Your task to perform on an android device: Open notification settings Image 0: 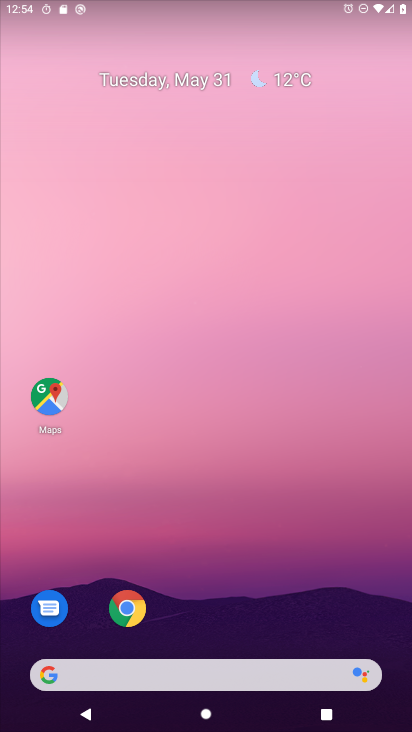
Step 0: drag from (237, 648) to (226, 13)
Your task to perform on an android device: Open notification settings Image 1: 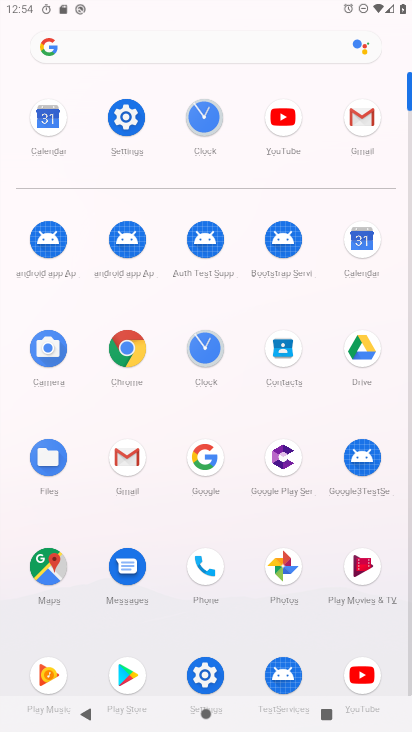
Step 1: click (122, 108)
Your task to perform on an android device: Open notification settings Image 2: 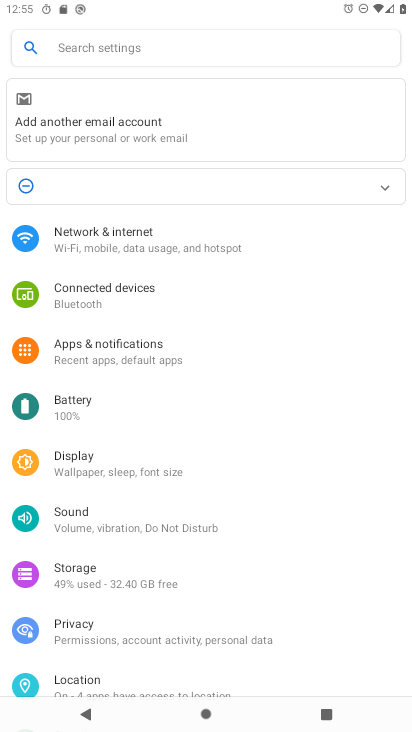
Step 2: click (102, 349)
Your task to perform on an android device: Open notification settings Image 3: 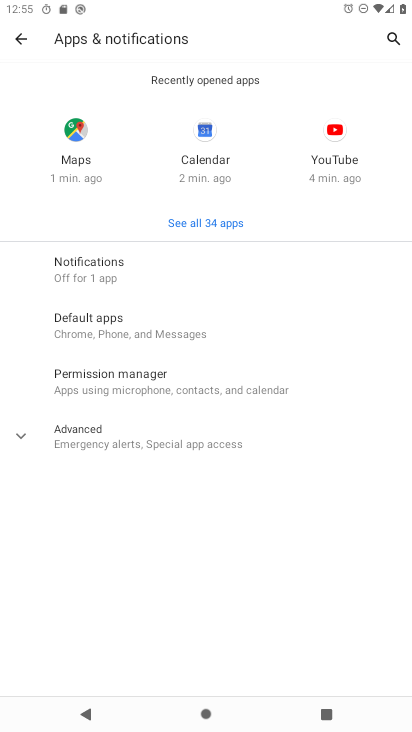
Step 3: click (82, 285)
Your task to perform on an android device: Open notification settings Image 4: 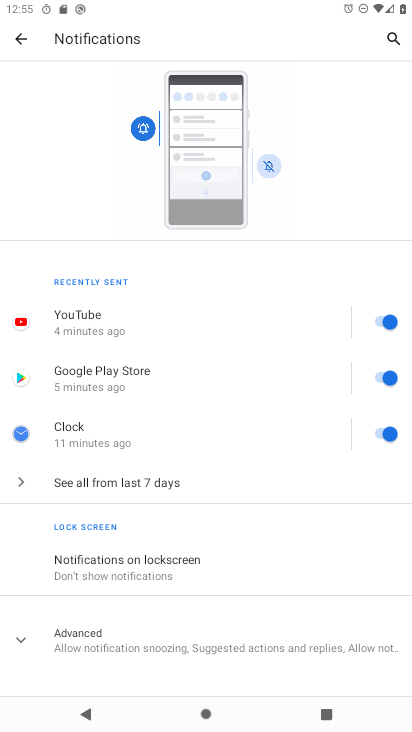
Step 4: click (24, 644)
Your task to perform on an android device: Open notification settings Image 5: 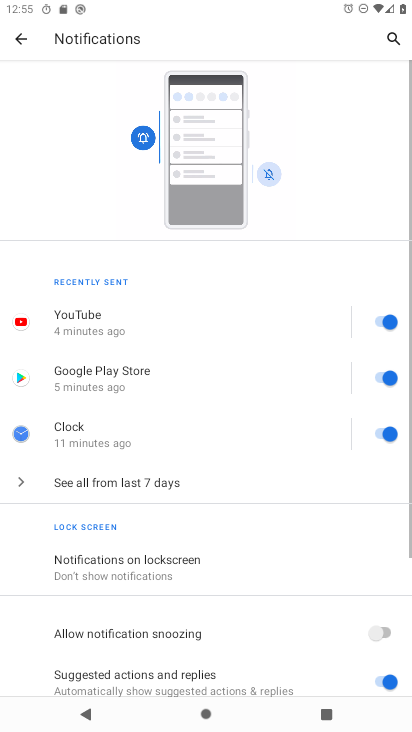
Step 5: task complete